Your task to perform on an android device: check android version Image 0: 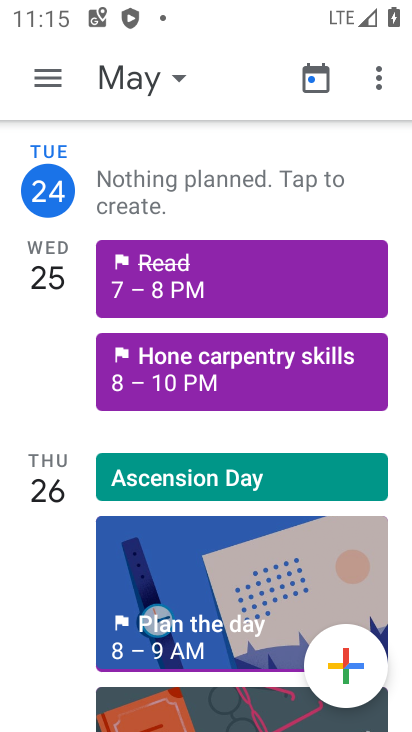
Step 0: press home button
Your task to perform on an android device: check android version Image 1: 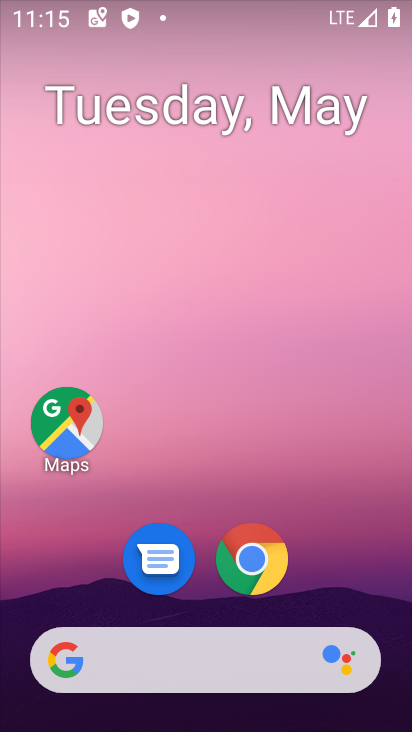
Step 1: drag from (329, 577) to (343, 189)
Your task to perform on an android device: check android version Image 2: 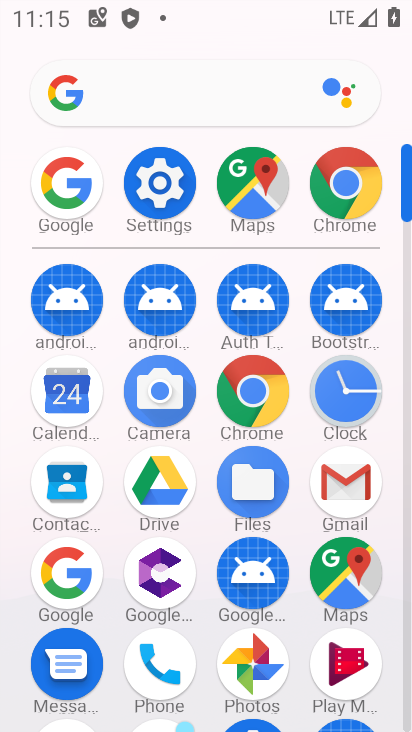
Step 2: click (166, 198)
Your task to perform on an android device: check android version Image 3: 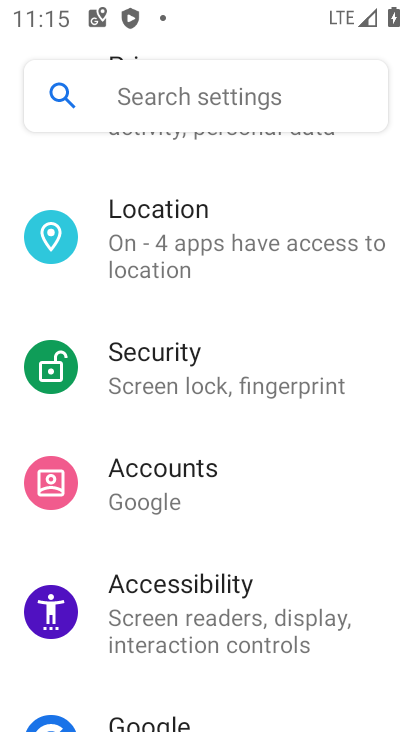
Step 3: drag from (291, 284) to (294, 605)
Your task to perform on an android device: check android version Image 4: 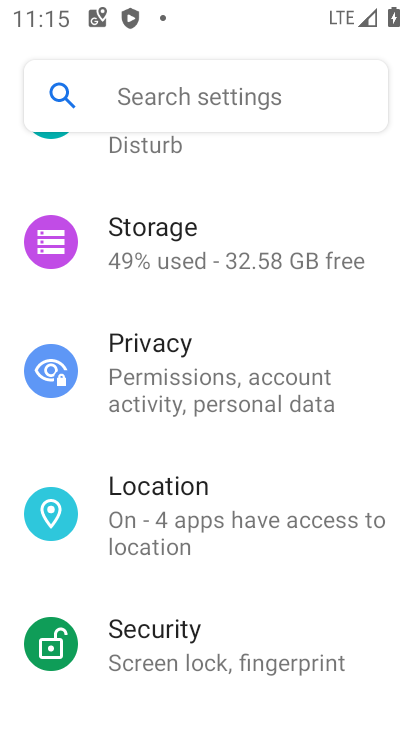
Step 4: drag from (273, 558) to (320, 230)
Your task to perform on an android device: check android version Image 5: 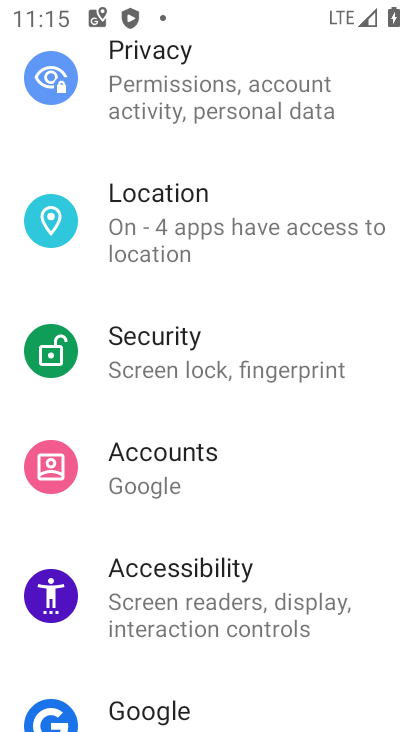
Step 5: drag from (240, 625) to (276, 199)
Your task to perform on an android device: check android version Image 6: 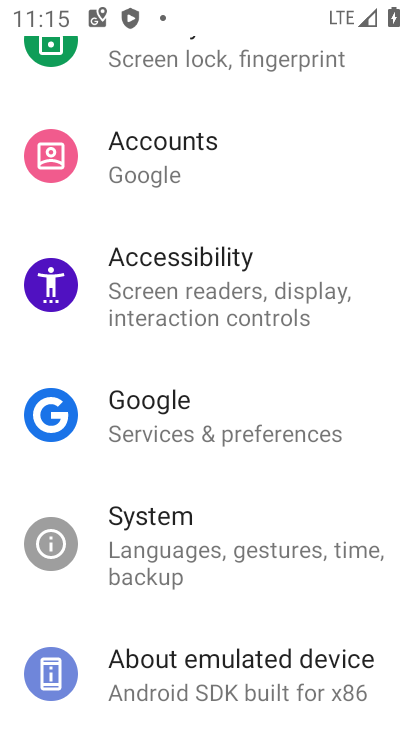
Step 6: drag from (234, 616) to (280, 254)
Your task to perform on an android device: check android version Image 7: 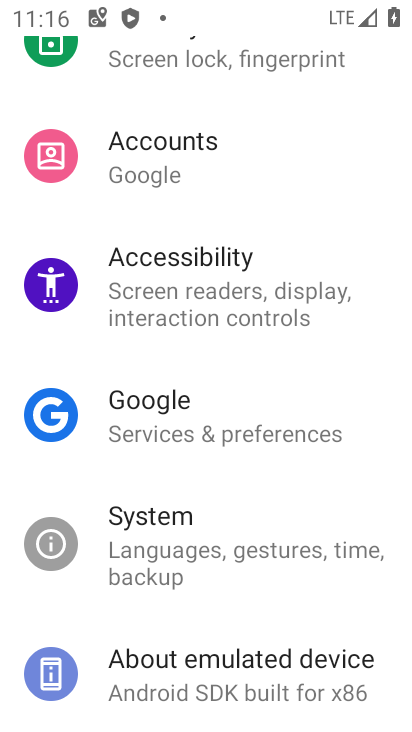
Step 7: click (237, 684)
Your task to perform on an android device: check android version Image 8: 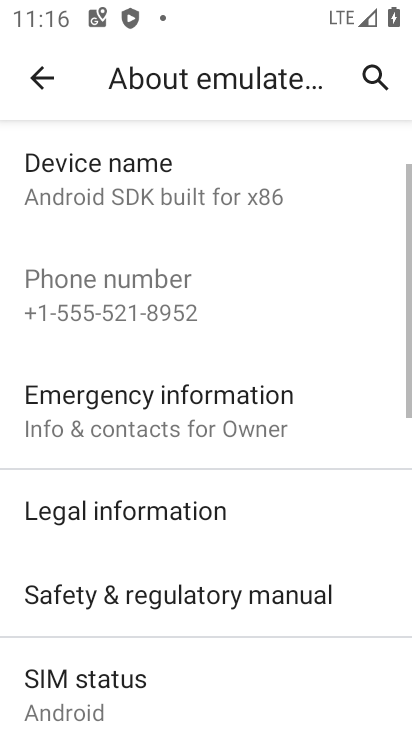
Step 8: task complete